Your task to perform on an android device: Open settings Image 0: 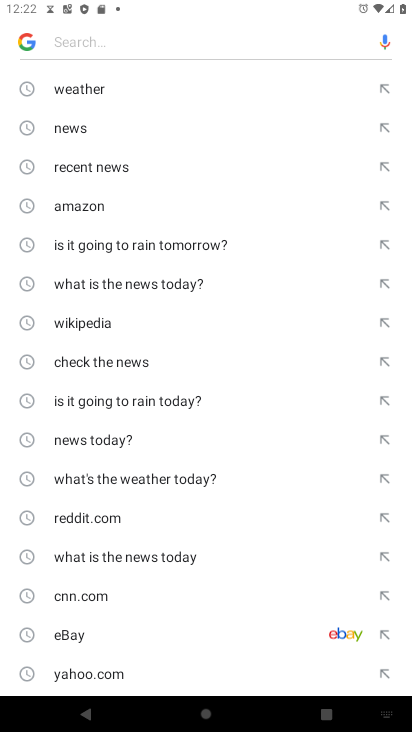
Step 0: press home button
Your task to perform on an android device: Open settings Image 1: 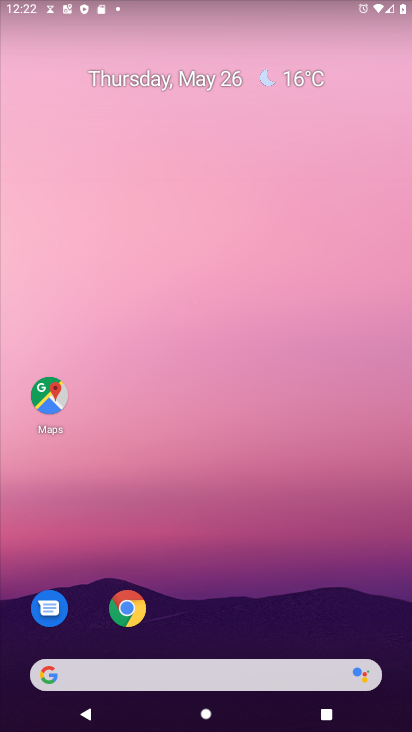
Step 1: drag from (224, 712) to (220, 69)
Your task to perform on an android device: Open settings Image 2: 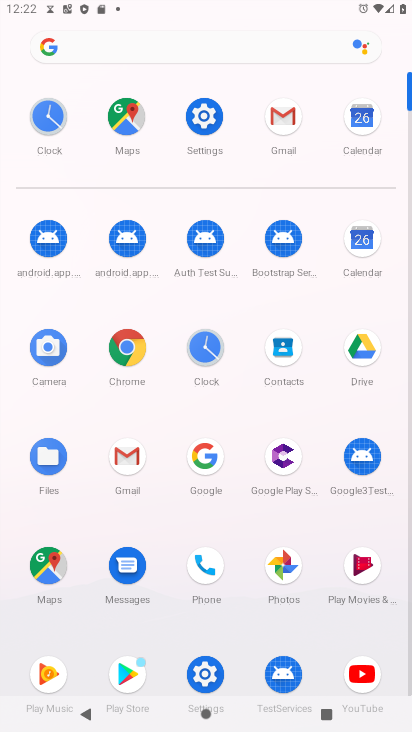
Step 2: click (210, 122)
Your task to perform on an android device: Open settings Image 3: 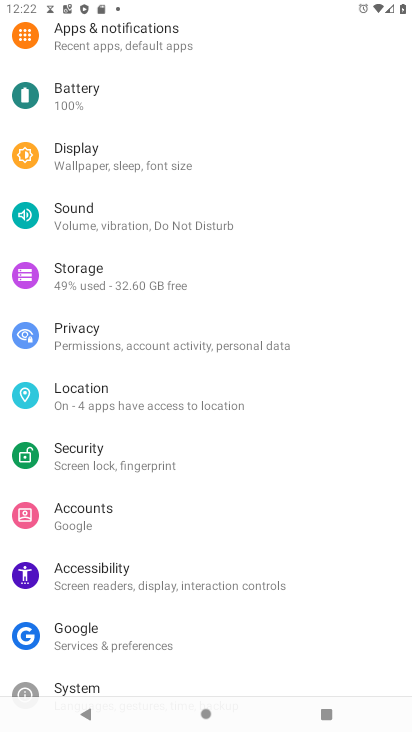
Step 3: task complete